Your task to perform on an android device: turn on priority inbox in the gmail app Image 0: 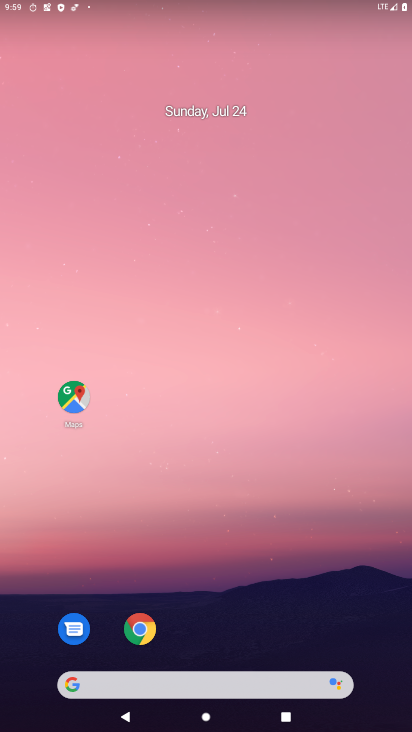
Step 0: press home button
Your task to perform on an android device: turn on priority inbox in the gmail app Image 1: 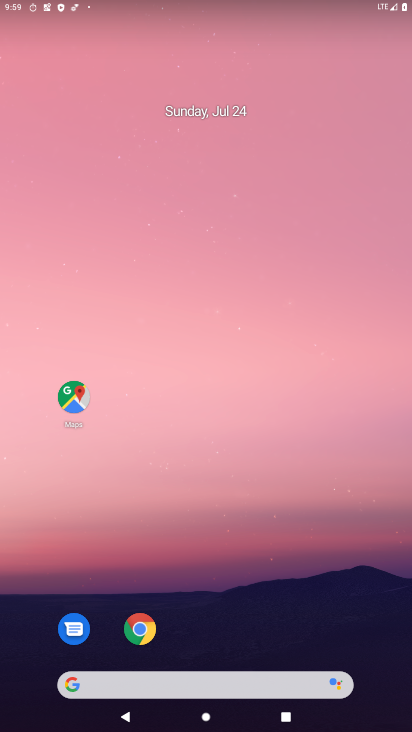
Step 1: drag from (309, 559) to (301, 22)
Your task to perform on an android device: turn on priority inbox in the gmail app Image 2: 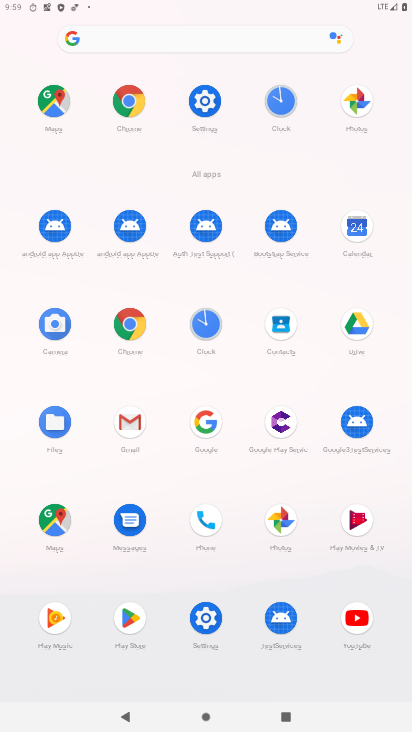
Step 2: click (124, 420)
Your task to perform on an android device: turn on priority inbox in the gmail app Image 3: 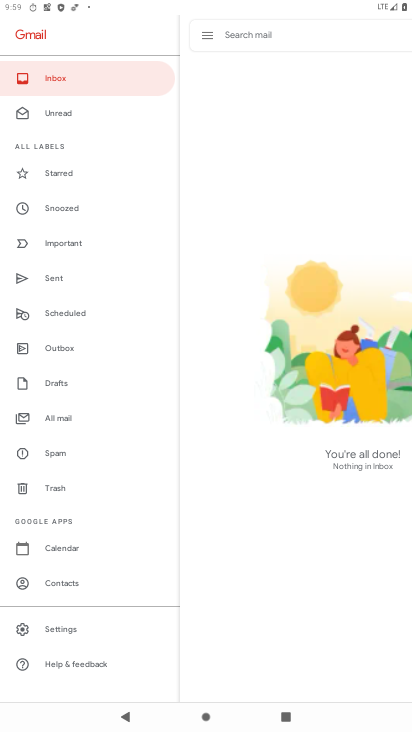
Step 3: click (65, 626)
Your task to perform on an android device: turn on priority inbox in the gmail app Image 4: 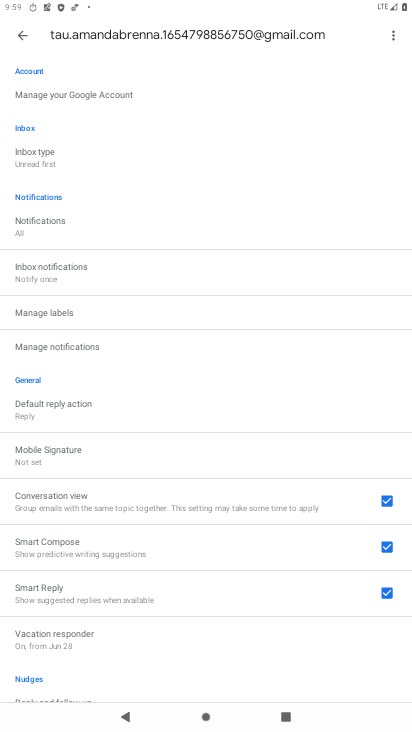
Step 4: click (47, 161)
Your task to perform on an android device: turn on priority inbox in the gmail app Image 5: 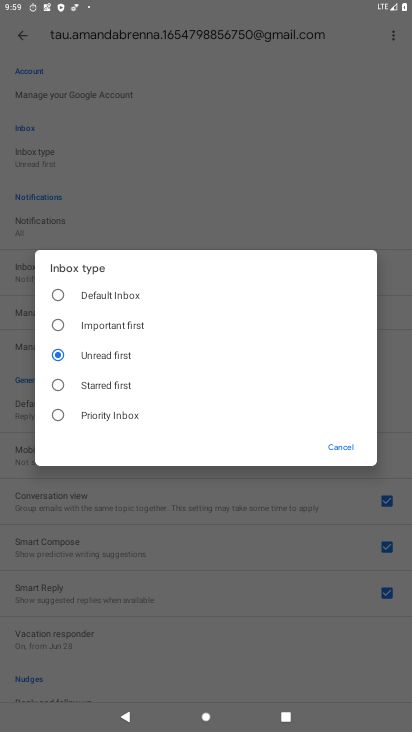
Step 5: click (132, 411)
Your task to perform on an android device: turn on priority inbox in the gmail app Image 6: 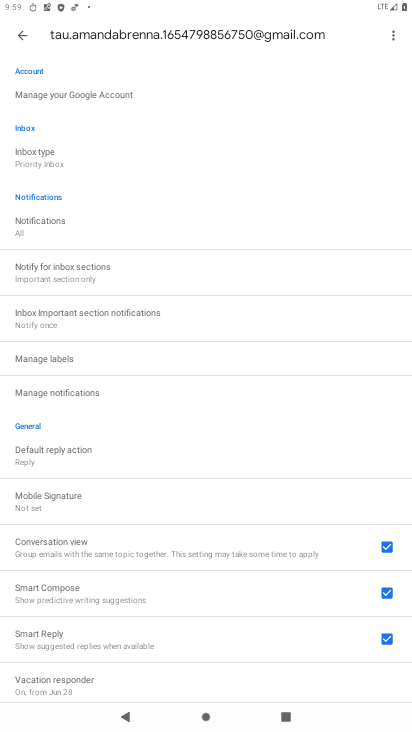
Step 6: task complete